Your task to perform on an android device: Do I have any events this weekend? Image 0: 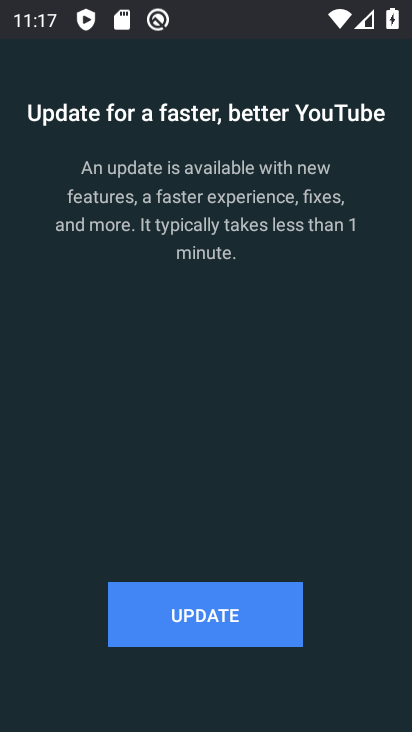
Step 0: press back button
Your task to perform on an android device: Do I have any events this weekend? Image 1: 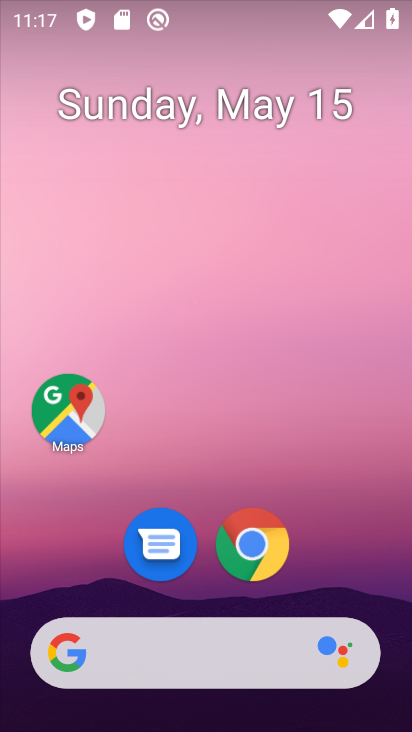
Step 1: drag from (358, 538) to (337, 91)
Your task to perform on an android device: Do I have any events this weekend? Image 2: 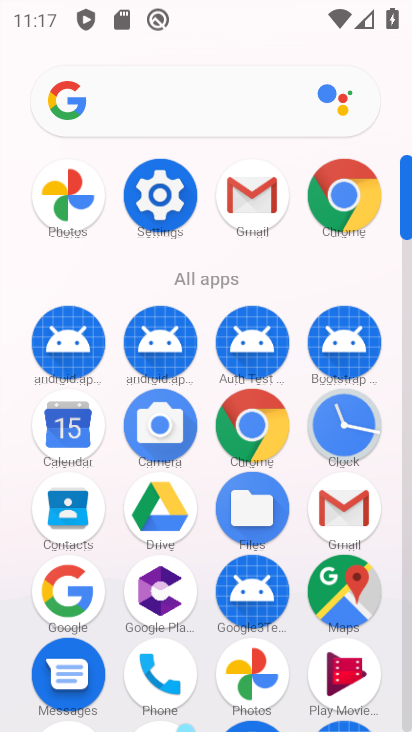
Step 2: click (76, 440)
Your task to perform on an android device: Do I have any events this weekend? Image 3: 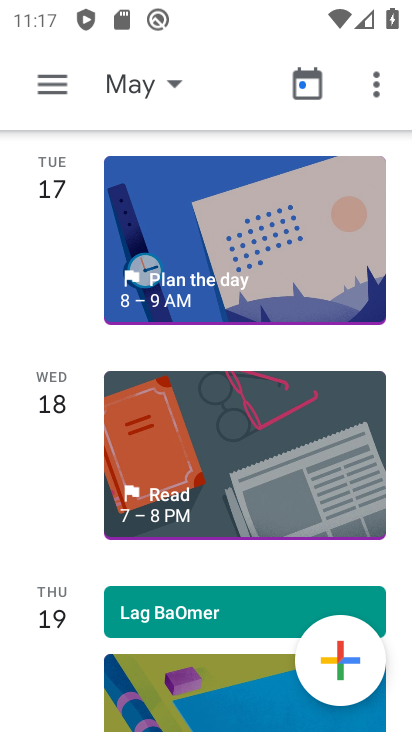
Step 3: click (57, 79)
Your task to perform on an android device: Do I have any events this weekend? Image 4: 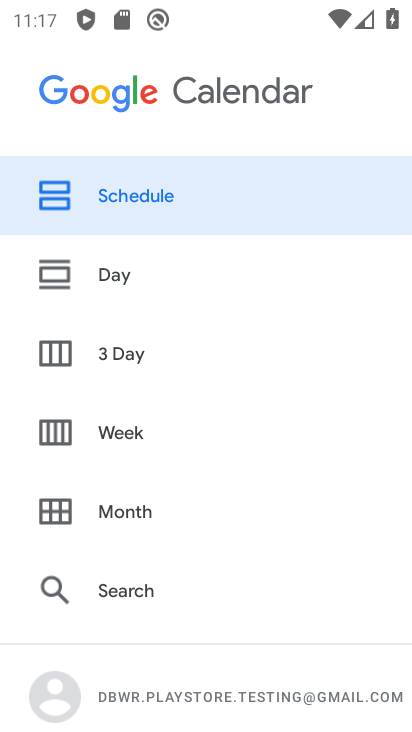
Step 4: drag from (220, 624) to (267, 48)
Your task to perform on an android device: Do I have any events this weekend? Image 5: 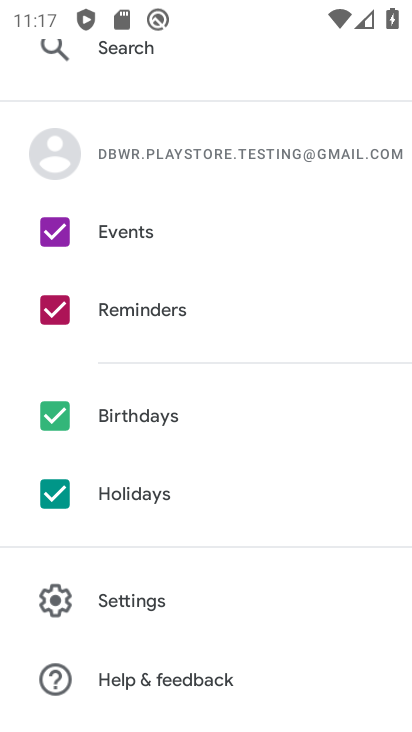
Step 5: click (54, 492)
Your task to perform on an android device: Do I have any events this weekend? Image 6: 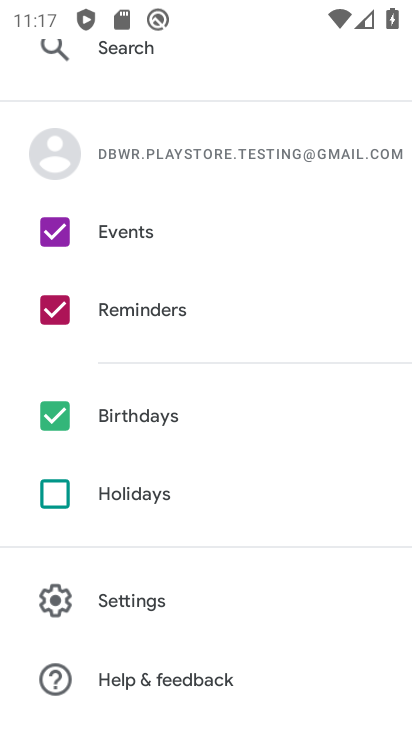
Step 6: click (54, 405)
Your task to perform on an android device: Do I have any events this weekend? Image 7: 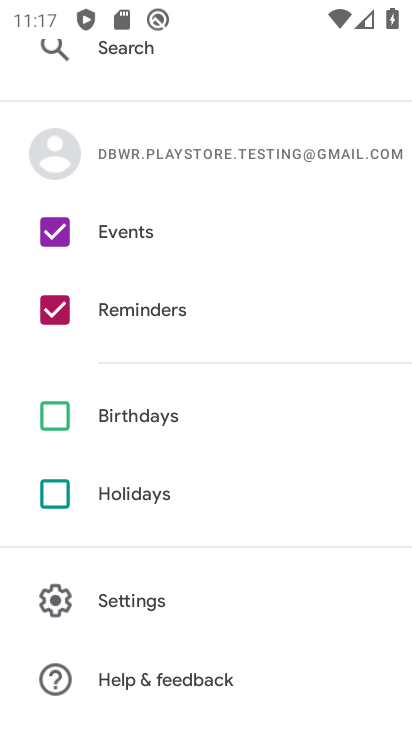
Step 7: click (52, 313)
Your task to perform on an android device: Do I have any events this weekend? Image 8: 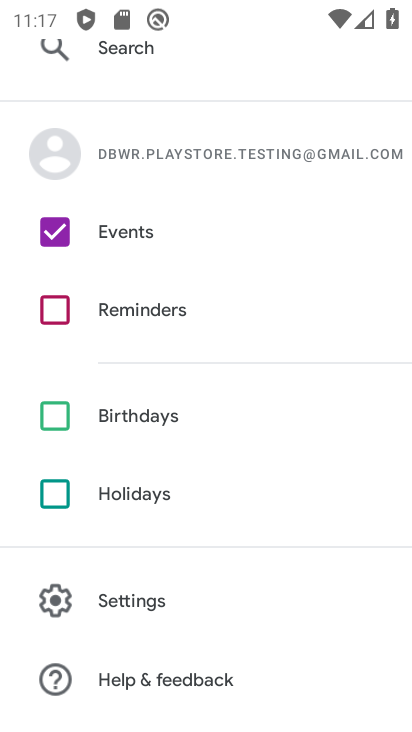
Step 8: drag from (201, 161) to (261, 584)
Your task to perform on an android device: Do I have any events this weekend? Image 9: 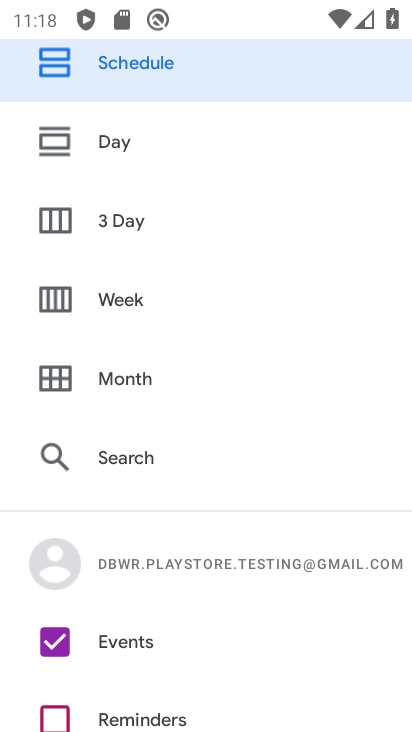
Step 9: click (187, 223)
Your task to perform on an android device: Do I have any events this weekend? Image 10: 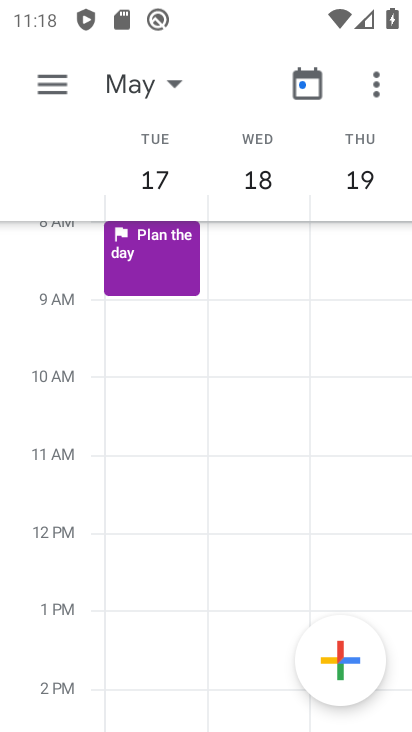
Step 10: click (183, 84)
Your task to perform on an android device: Do I have any events this weekend? Image 11: 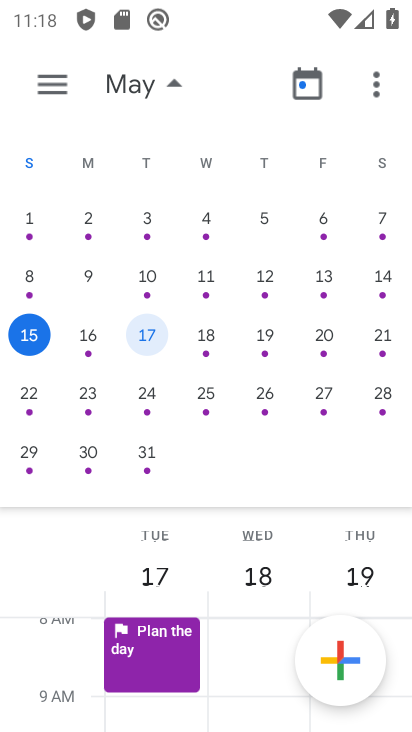
Step 11: click (375, 335)
Your task to perform on an android device: Do I have any events this weekend? Image 12: 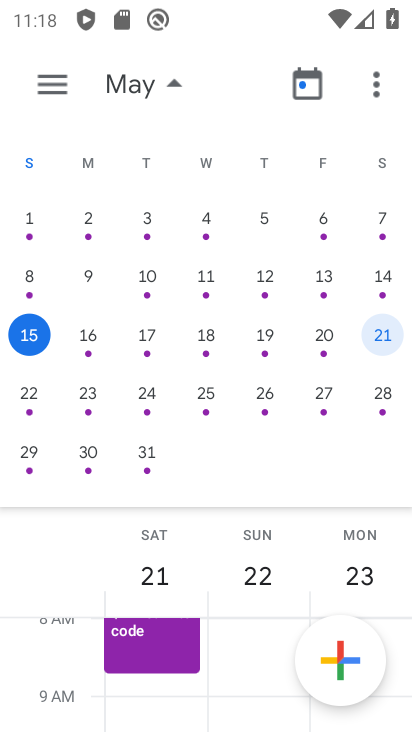
Step 12: click (167, 90)
Your task to perform on an android device: Do I have any events this weekend? Image 13: 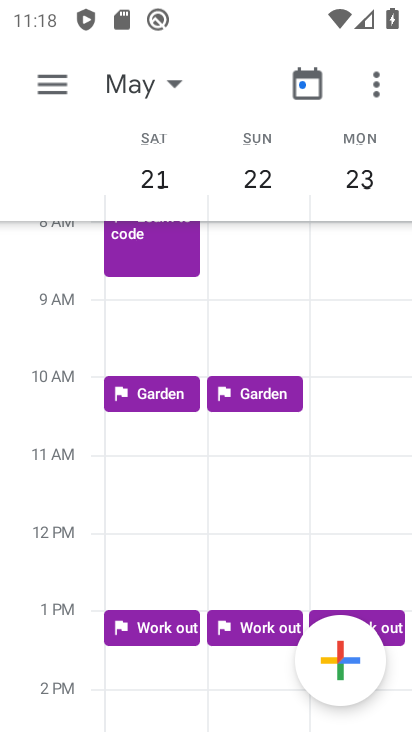
Step 13: task complete